Your task to perform on an android device: Add razer kraken to the cart on walmart, then select checkout. Image 0: 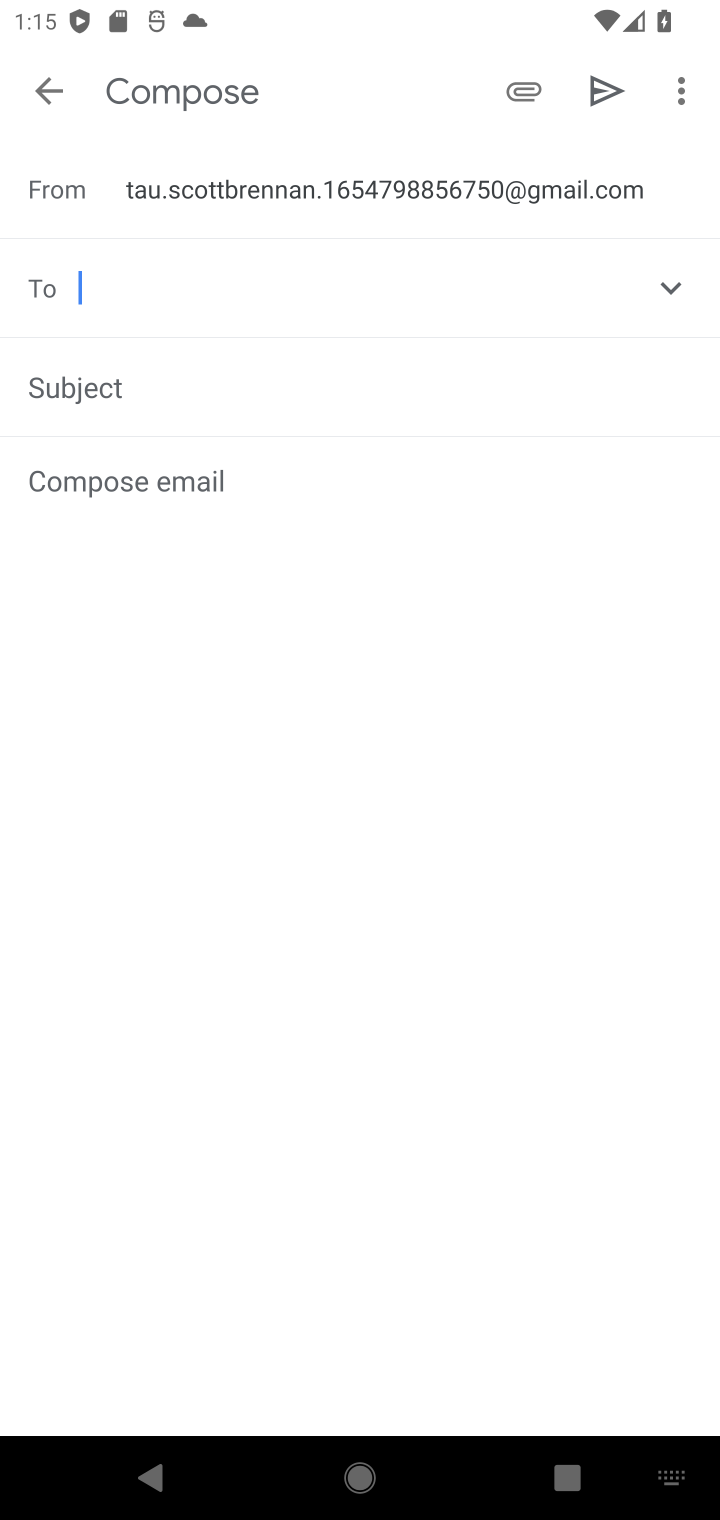
Step 0: task complete